Your task to perform on an android device: Open accessibility settings Image 0: 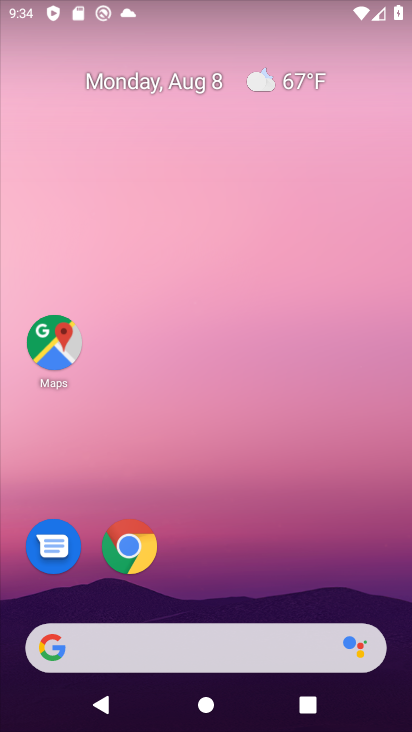
Step 0: drag from (291, 513) to (357, 80)
Your task to perform on an android device: Open accessibility settings Image 1: 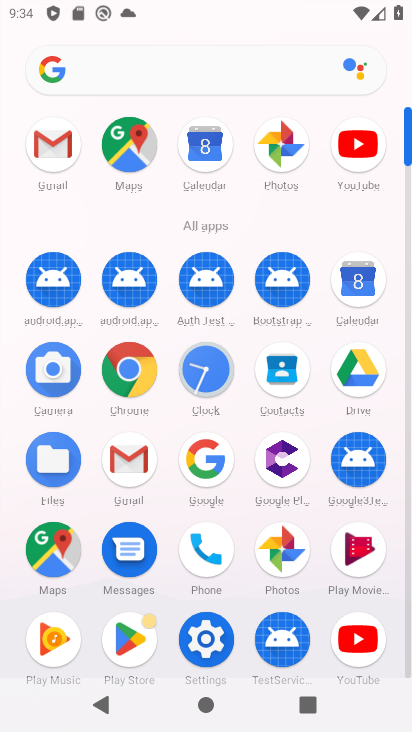
Step 1: click (209, 644)
Your task to perform on an android device: Open accessibility settings Image 2: 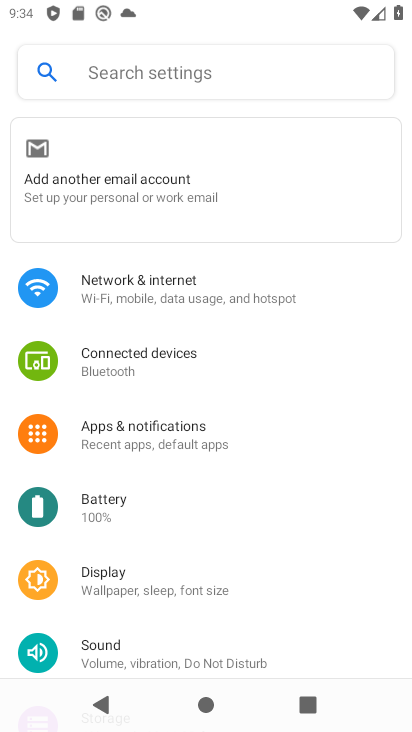
Step 2: task complete